Your task to perform on an android device: stop showing notifications on the lock screen Image 0: 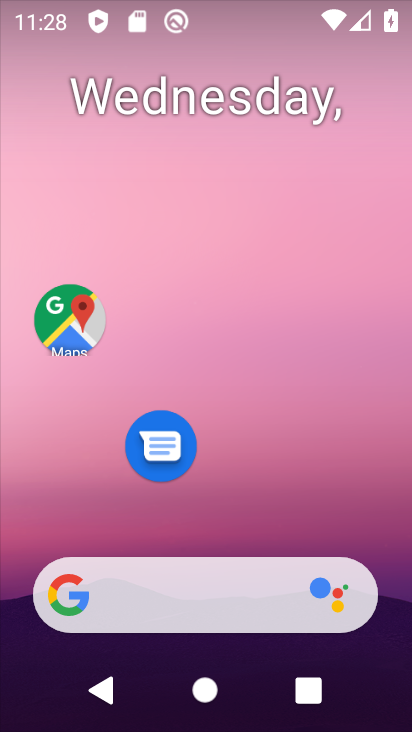
Step 0: drag from (212, 394) to (213, 82)
Your task to perform on an android device: stop showing notifications on the lock screen Image 1: 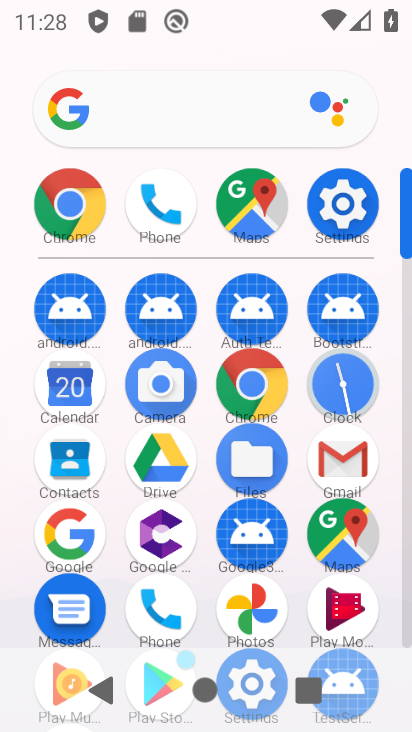
Step 1: click (337, 193)
Your task to perform on an android device: stop showing notifications on the lock screen Image 2: 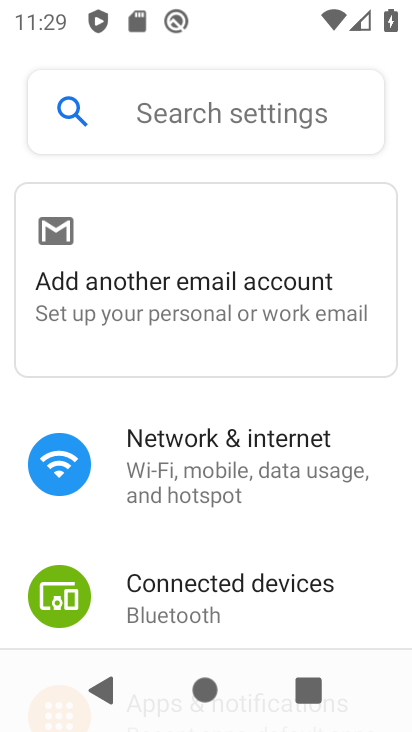
Step 2: drag from (365, 500) to (362, 242)
Your task to perform on an android device: stop showing notifications on the lock screen Image 3: 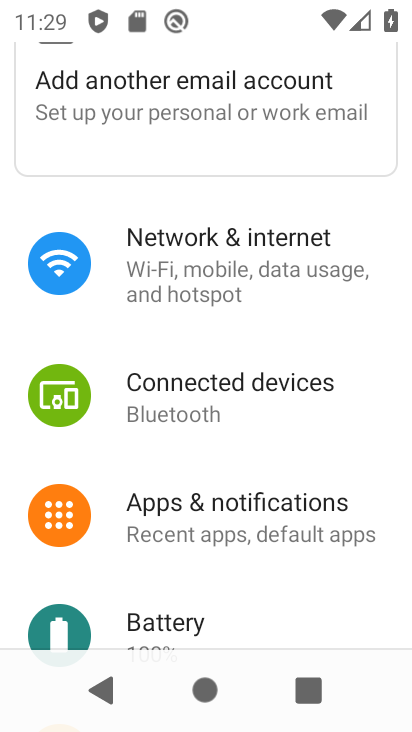
Step 3: click (216, 524)
Your task to perform on an android device: stop showing notifications on the lock screen Image 4: 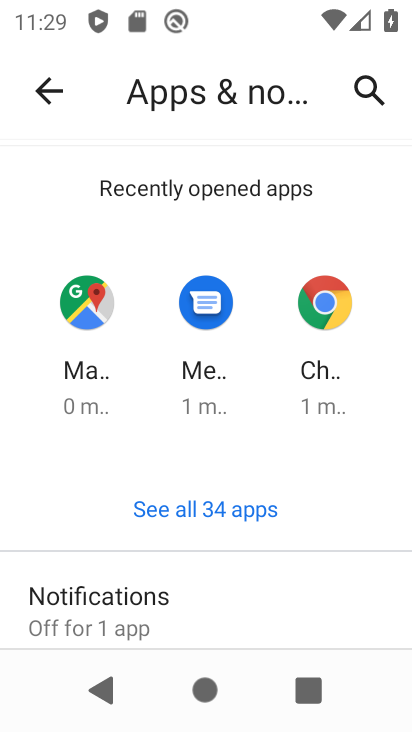
Step 4: click (113, 617)
Your task to perform on an android device: stop showing notifications on the lock screen Image 5: 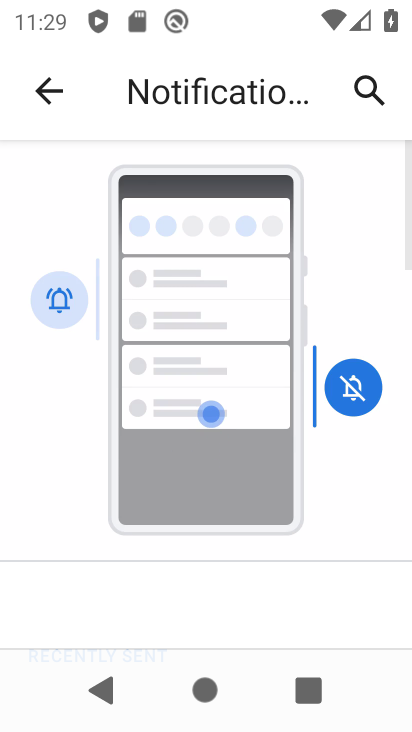
Step 5: drag from (113, 617) to (150, 224)
Your task to perform on an android device: stop showing notifications on the lock screen Image 6: 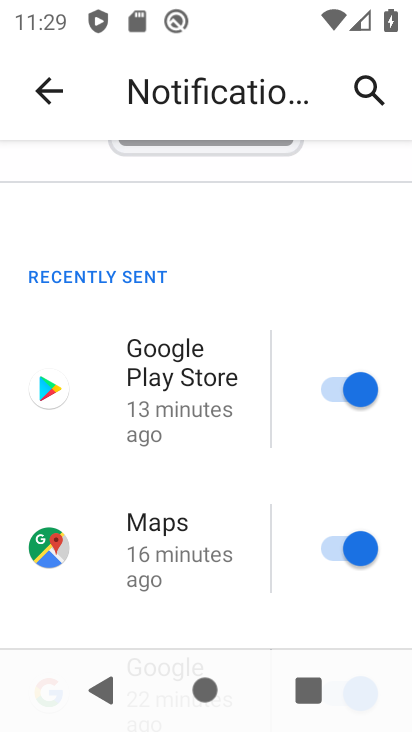
Step 6: drag from (171, 555) to (171, 259)
Your task to perform on an android device: stop showing notifications on the lock screen Image 7: 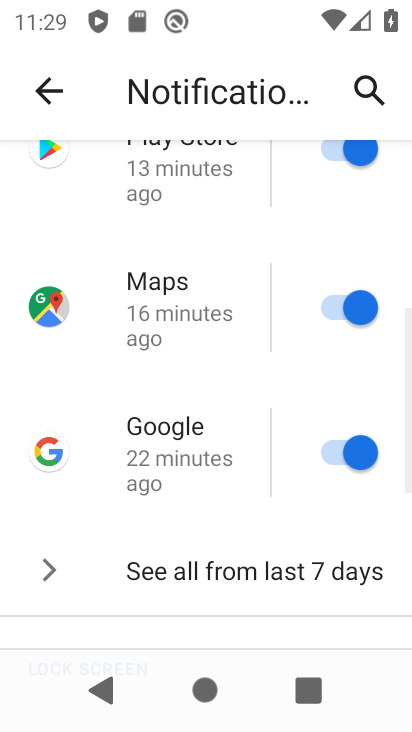
Step 7: drag from (126, 493) to (115, 274)
Your task to perform on an android device: stop showing notifications on the lock screen Image 8: 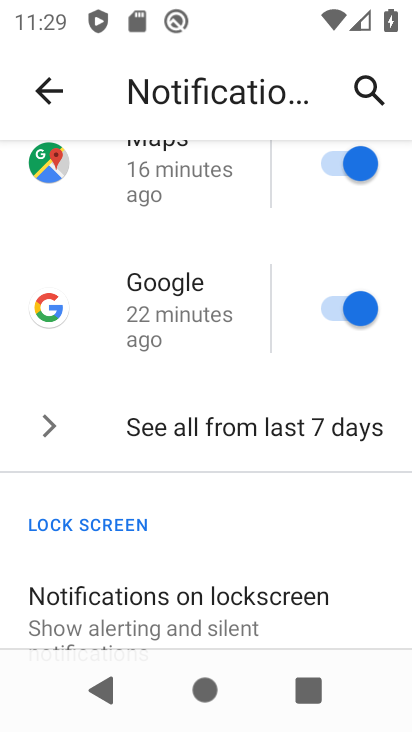
Step 8: click (123, 600)
Your task to perform on an android device: stop showing notifications on the lock screen Image 9: 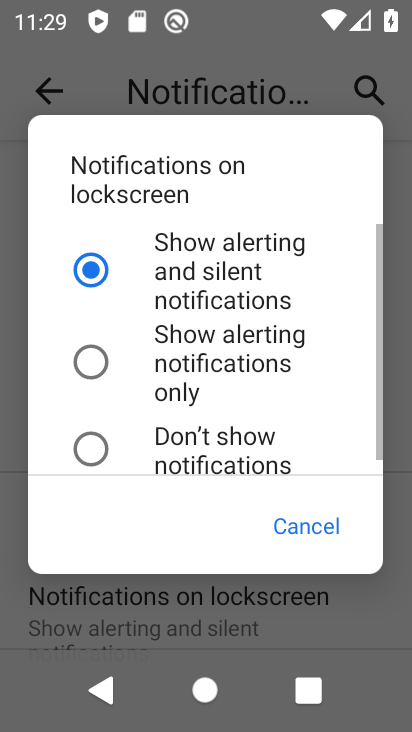
Step 9: click (162, 439)
Your task to perform on an android device: stop showing notifications on the lock screen Image 10: 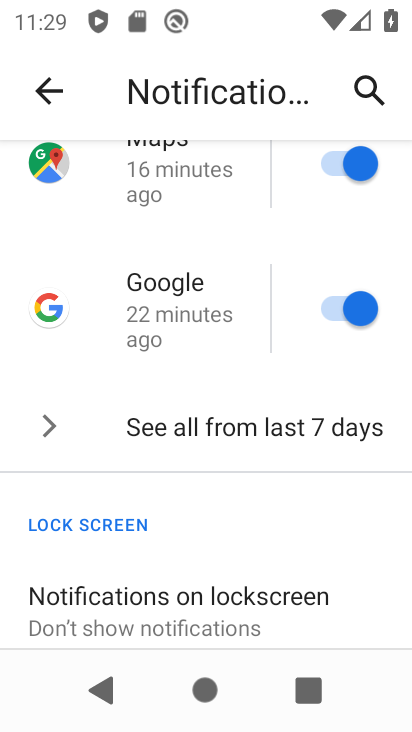
Step 10: task complete